Your task to perform on an android device: Open Youtube and go to the subscriptions tab Image 0: 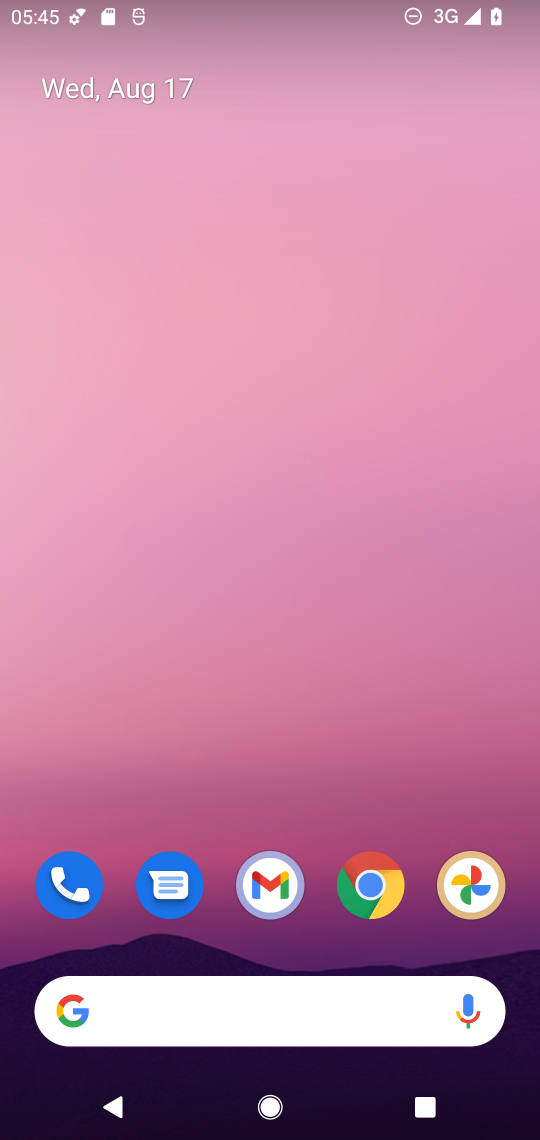
Step 0: drag from (339, 756) to (361, 69)
Your task to perform on an android device: Open Youtube and go to the subscriptions tab Image 1: 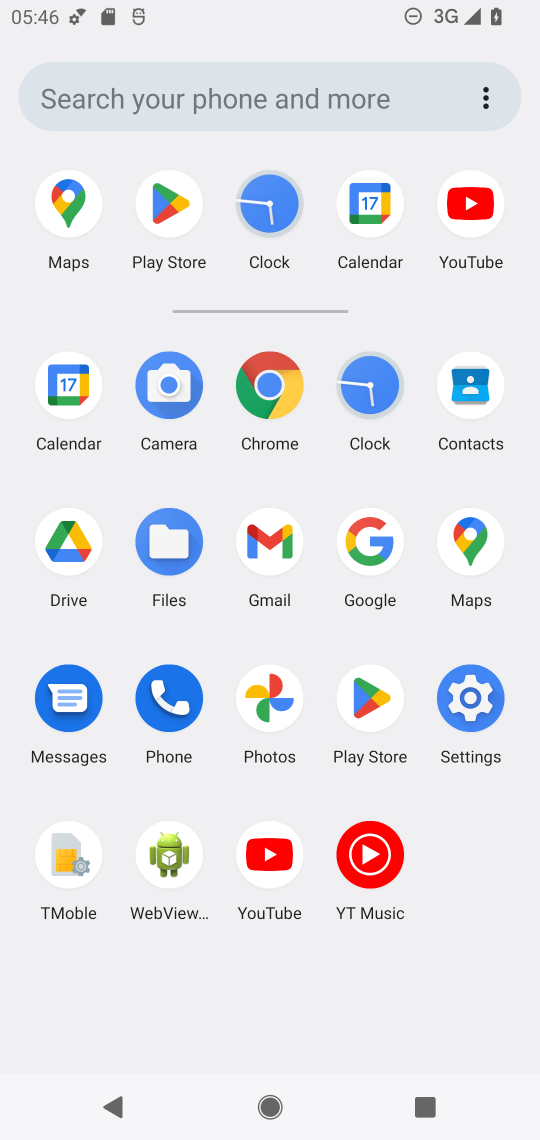
Step 1: click (262, 857)
Your task to perform on an android device: Open Youtube and go to the subscriptions tab Image 2: 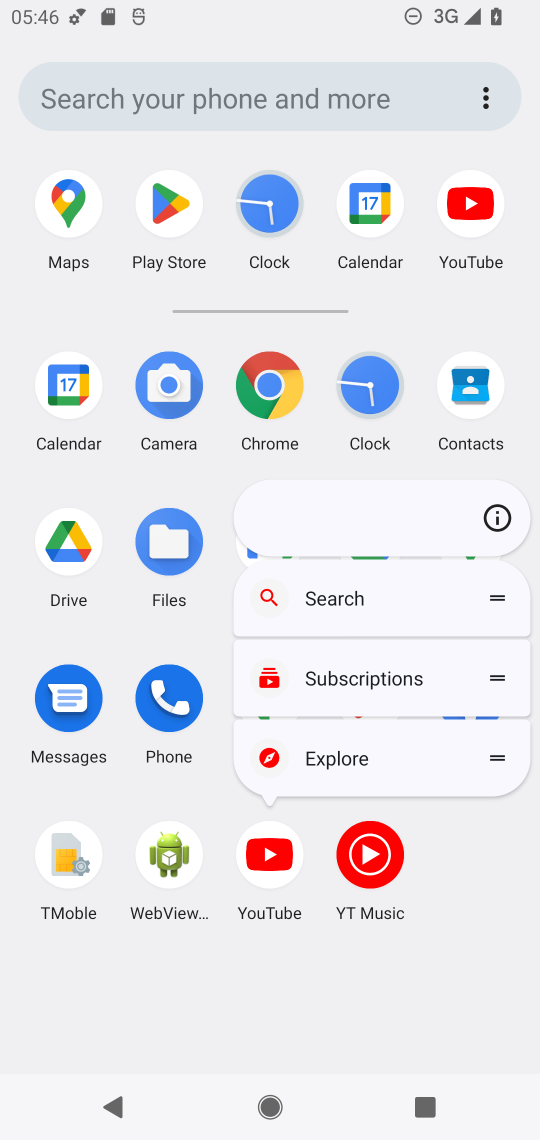
Step 2: click (262, 857)
Your task to perform on an android device: Open Youtube and go to the subscriptions tab Image 3: 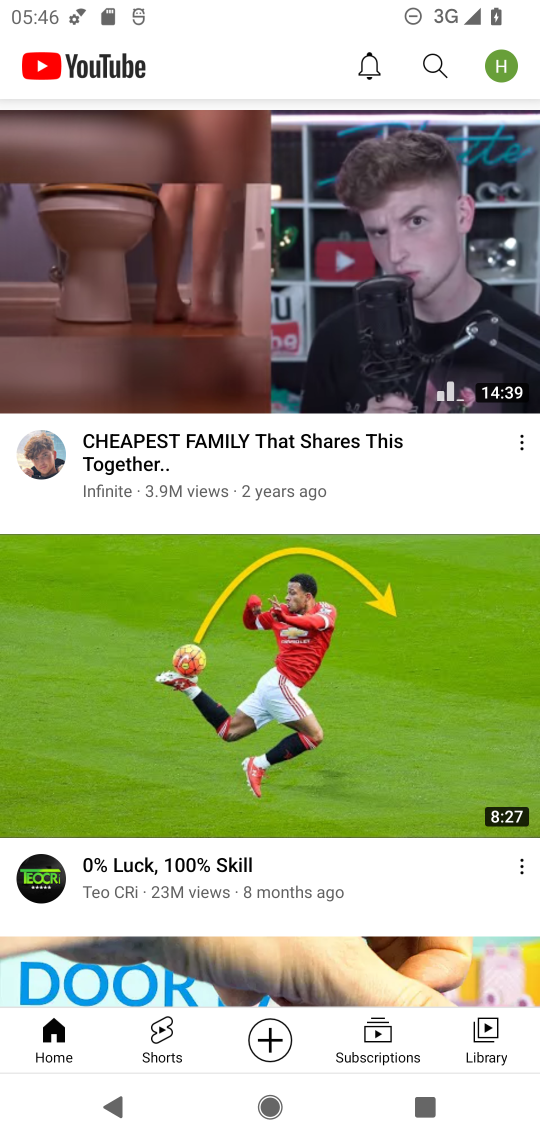
Step 3: click (377, 1038)
Your task to perform on an android device: Open Youtube and go to the subscriptions tab Image 4: 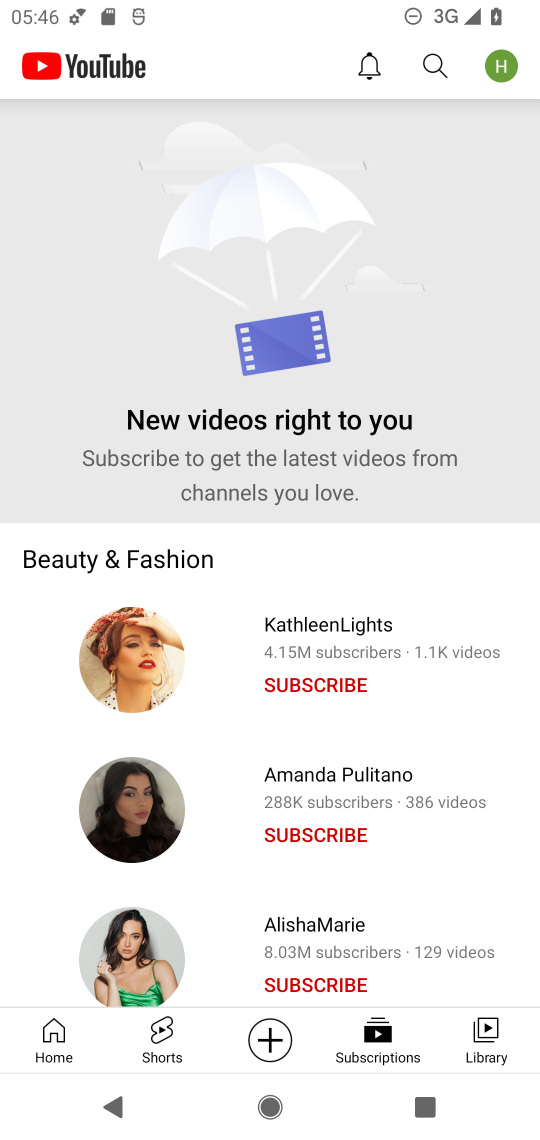
Step 4: task complete